Your task to perform on an android device: Show me popular videos on Youtube Image 0: 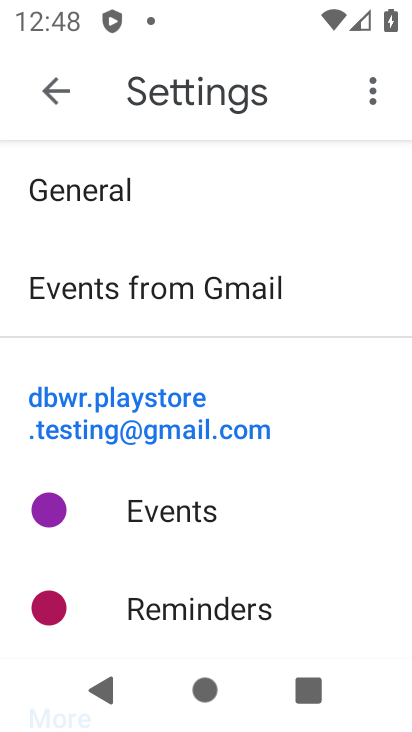
Step 0: press home button
Your task to perform on an android device: Show me popular videos on Youtube Image 1: 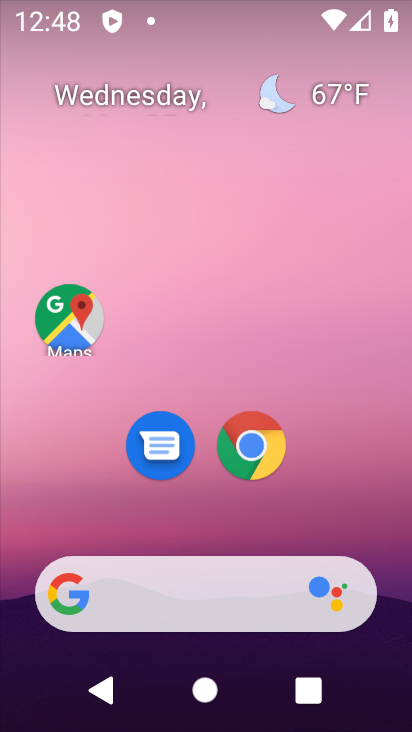
Step 1: drag from (385, 530) to (293, 43)
Your task to perform on an android device: Show me popular videos on Youtube Image 2: 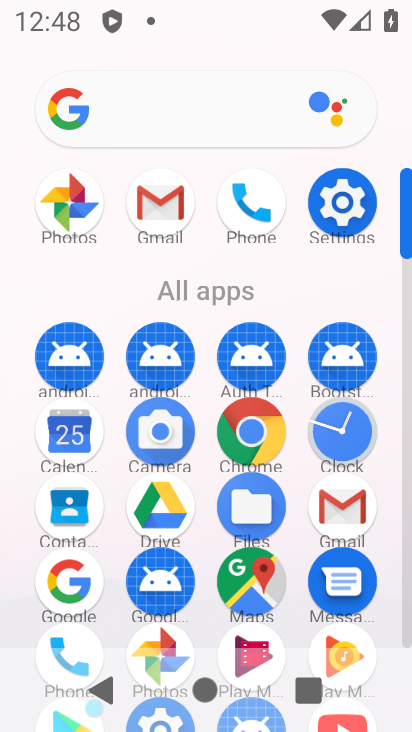
Step 2: click (409, 638)
Your task to perform on an android device: Show me popular videos on Youtube Image 3: 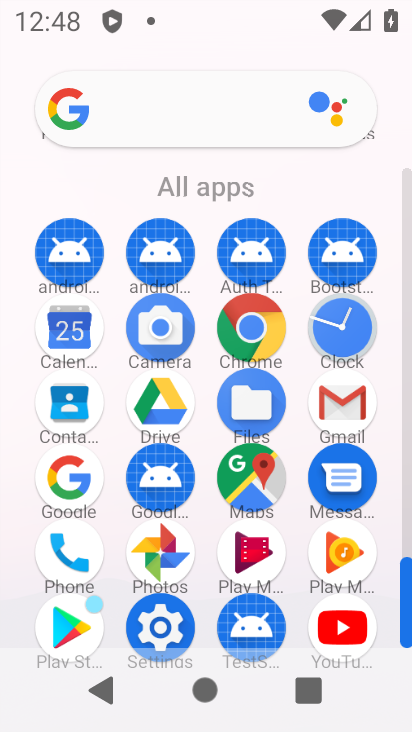
Step 3: click (352, 620)
Your task to perform on an android device: Show me popular videos on Youtube Image 4: 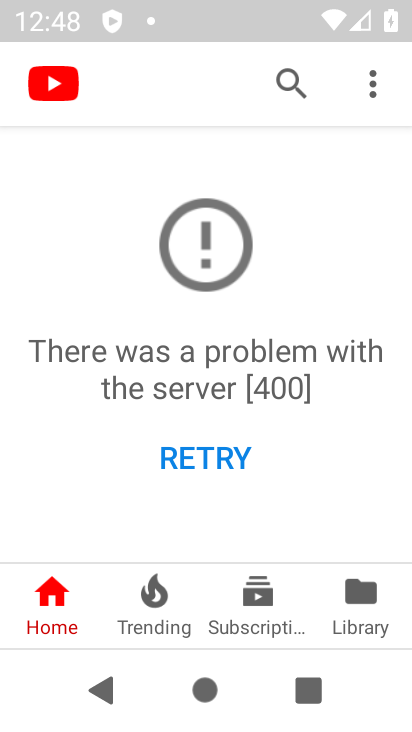
Step 4: task complete